Your task to perform on an android device: Open Google Maps Image 0: 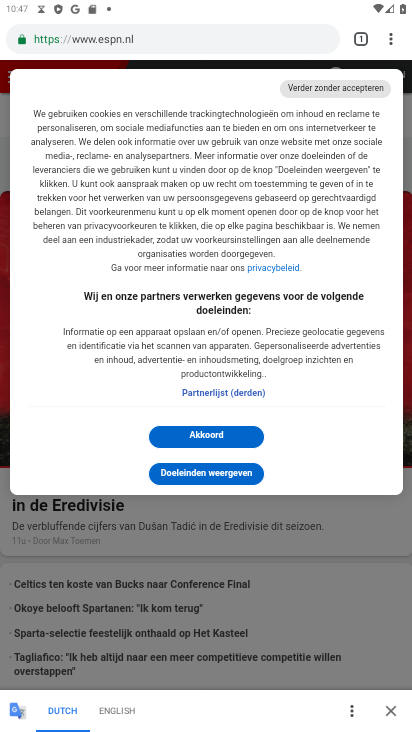
Step 0: press home button
Your task to perform on an android device: Open Google Maps Image 1: 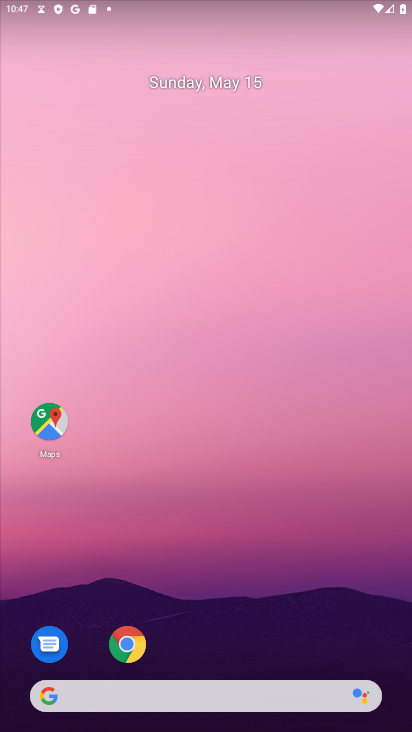
Step 1: drag from (218, 640) to (233, 286)
Your task to perform on an android device: Open Google Maps Image 2: 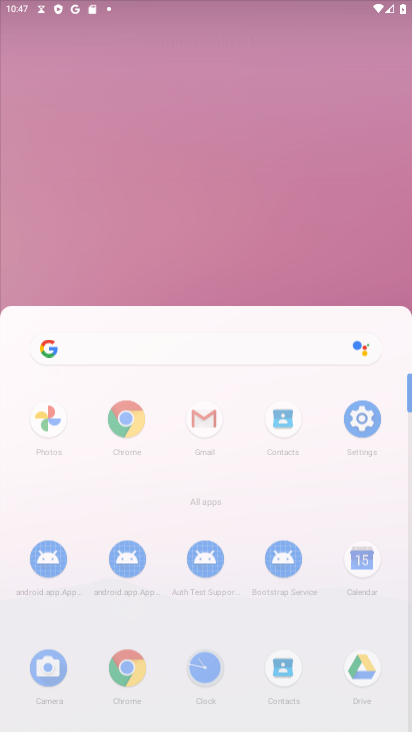
Step 2: drag from (233, 284) to (253, 176)
Your task to perform on an android device: Open Google Maps Image 3: 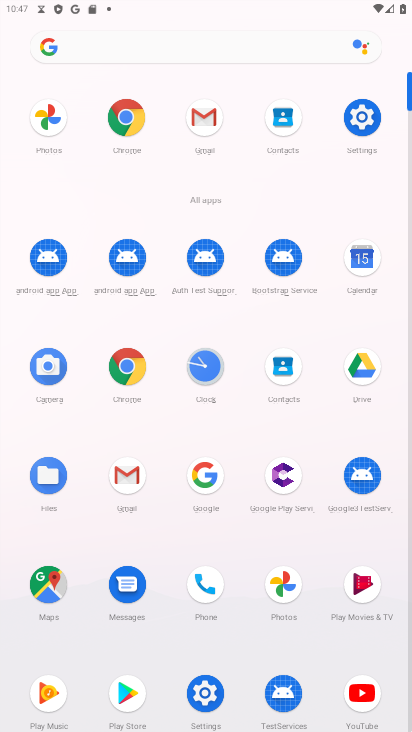
Step 3: click (45, 582)
Your task to perform on an android device: Open Google Maps Image 4: 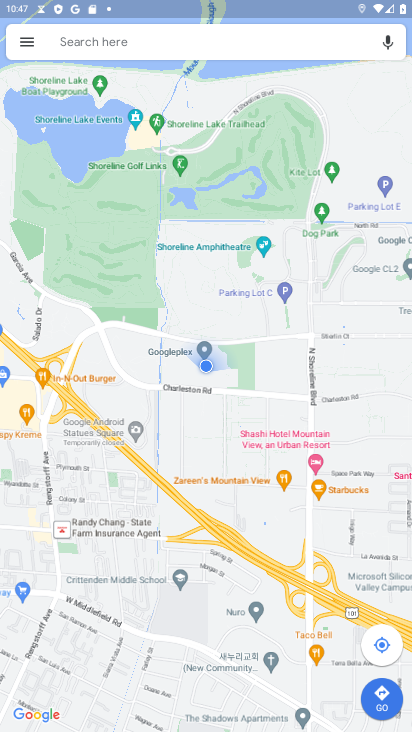
Step 4: task complete